Your task to perform on an android device: Turn off the flashlight Image 0: 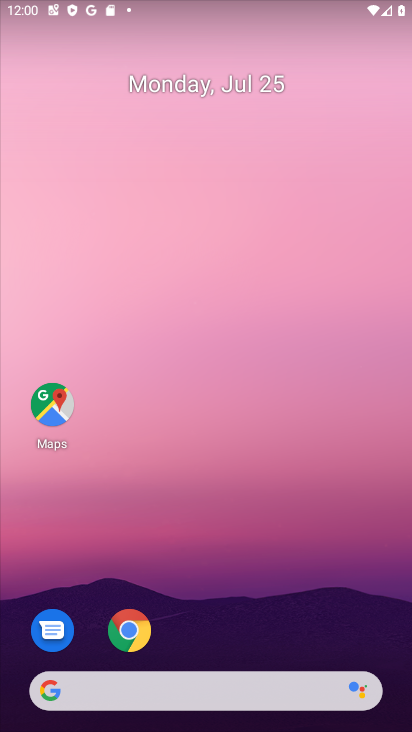
Step 0: press home button
Your task to perform on an android device: Turn off the flashlight Image 1: 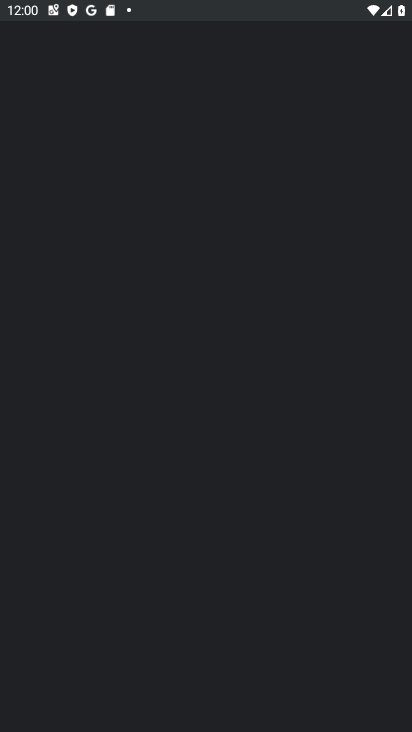
Step 1: task complete